Your task to perform on an android device: Open Amazon Image 0: 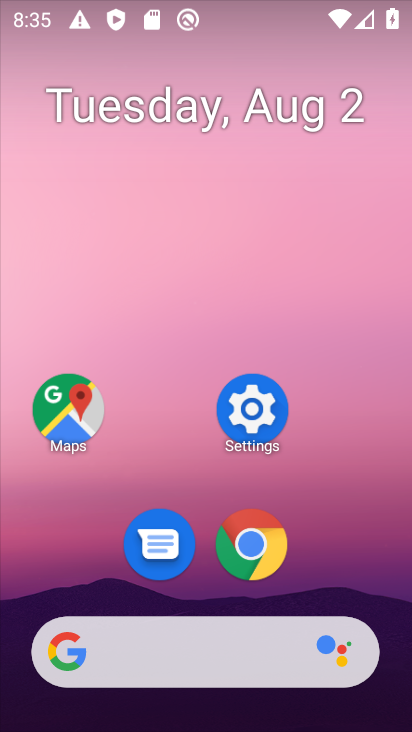
Step 0: click (249, 541)
Your task to perform on an android device: Open Amazon Image 1: 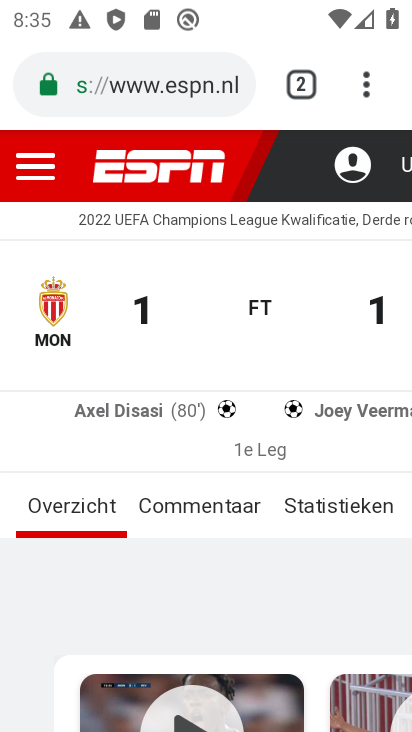
Step 1: drag from (364, 86) to (199, 169)
Your task to perform on an android device: Open Amazon Image 2: 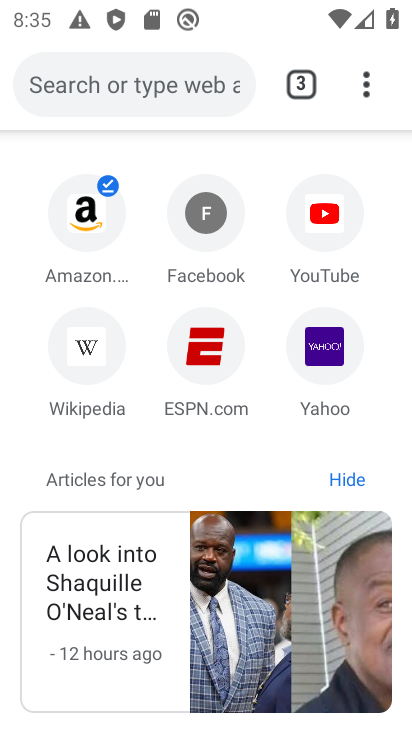
Step 2: click (89, 235)
Your task to perform on an android device: Open Amazon Image 3: 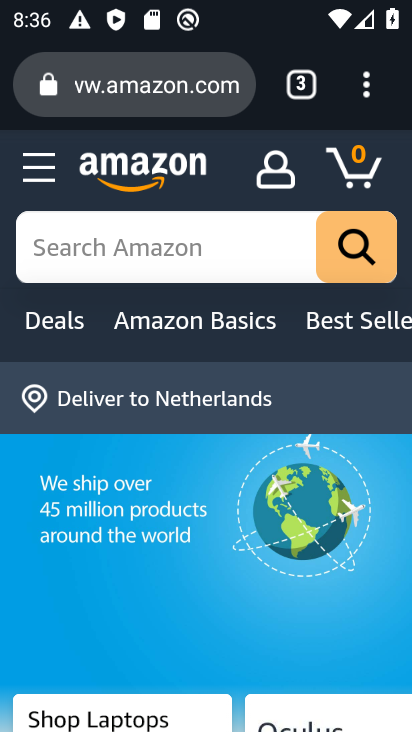
Step 3: task complete